Your task to perform on an android device: Open Yahoo.com Image 0: 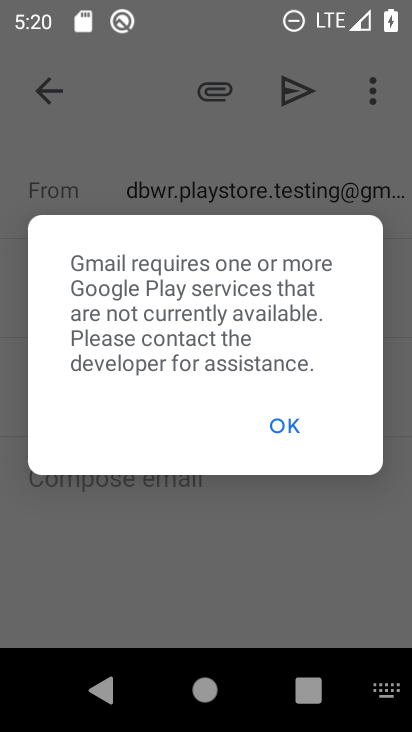
Step 0: press home button
Your task to perform on an android device: Open Yahoo.com Image 1: 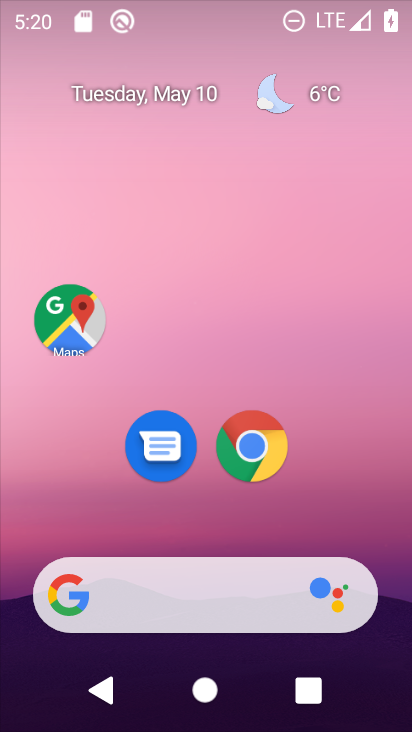
Step 1: click (249, 427)
Your task to perform on an android device: Open Yahoo.com Image 2: 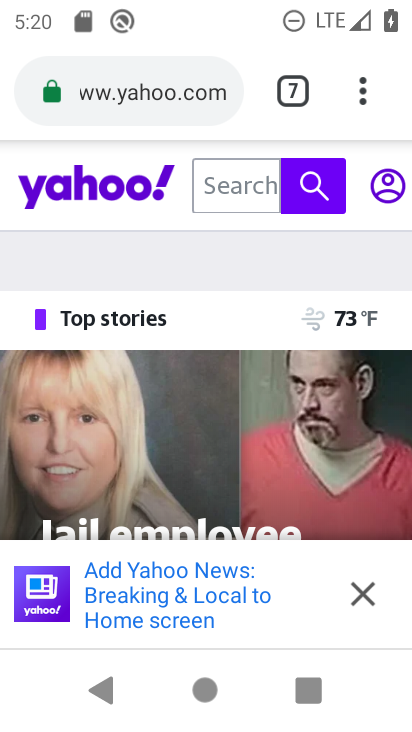
Step 2: task complete